Your task to perform on an android device: turn on airplane mode Image 0: 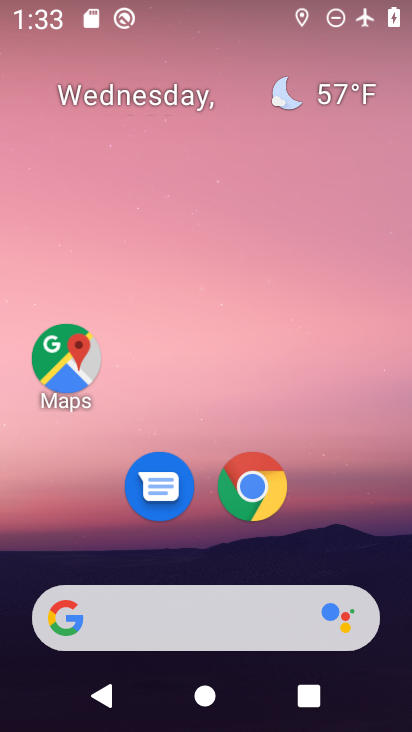
Step 0: drag from (351, 535) to (356, 167)
Your task to perform on an android device: turn on airplane mode Image 1: 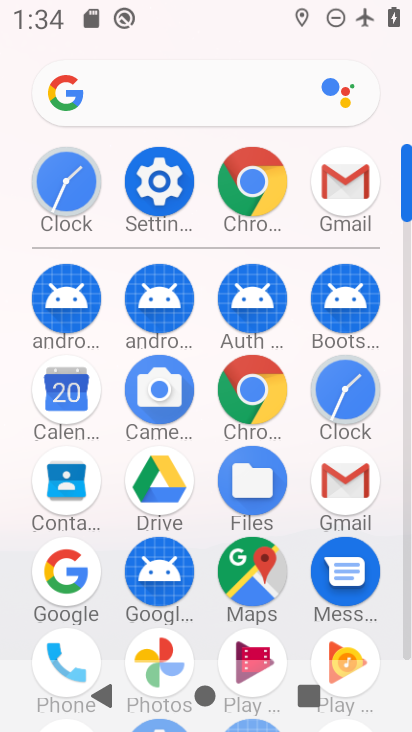
Step 1: click (166, 187)
Your task to perform on an android device: turn on airplane mode Image 2: 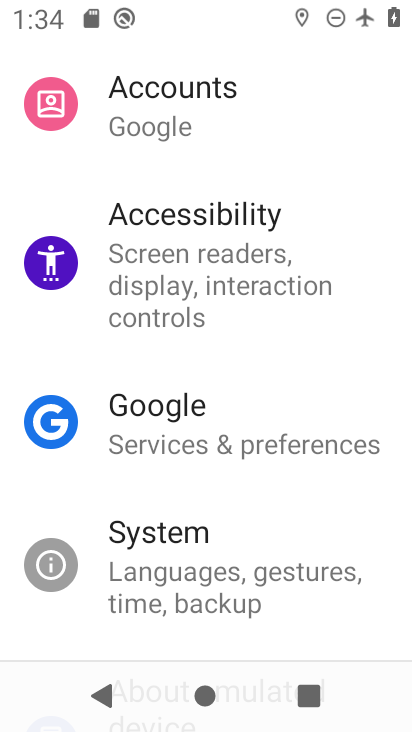
Step 2: drag from (350, 211) to (357, 310)
Your task to perform on an android device: turn on airplane mode Image 3: 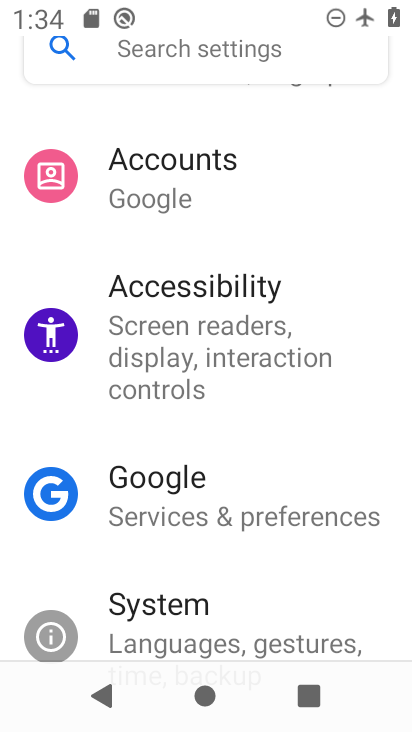
Step 3: drag from (364, 190) to (374, 284)
Your task to perform on an android device: turn on airplane mode Image 4: 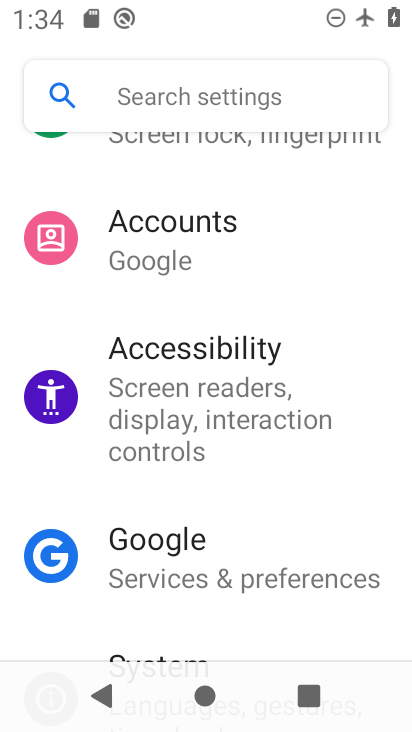
Step 4: drag from (362, 210) to (372, 305)
Your task to perform on an android device: turn on airplane mode Image 5: 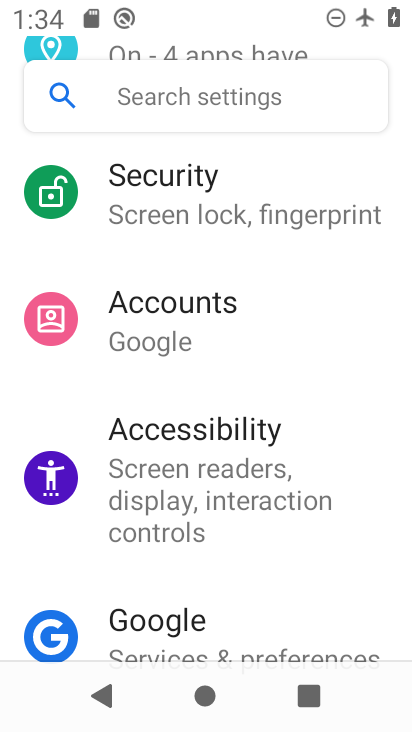
Step 5: drag from (372, 240) to (371, 317)
Your task to perform on an android device: turn on airplane mode Image 6: 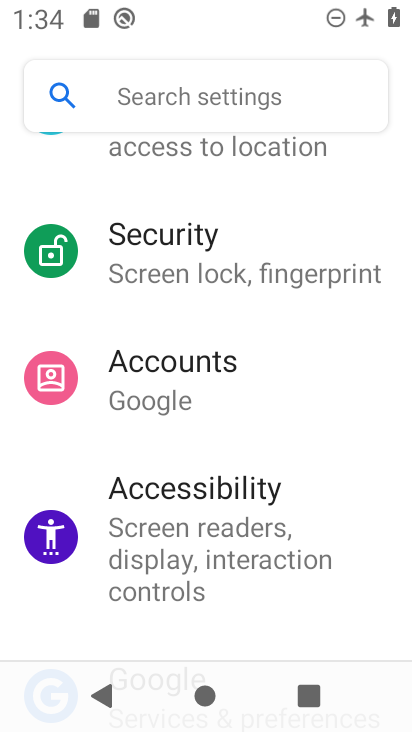
Step 6: drag from (365, 244) to (366, 308)
Your task to perform on an android device: turn on airplane mode Image 7: 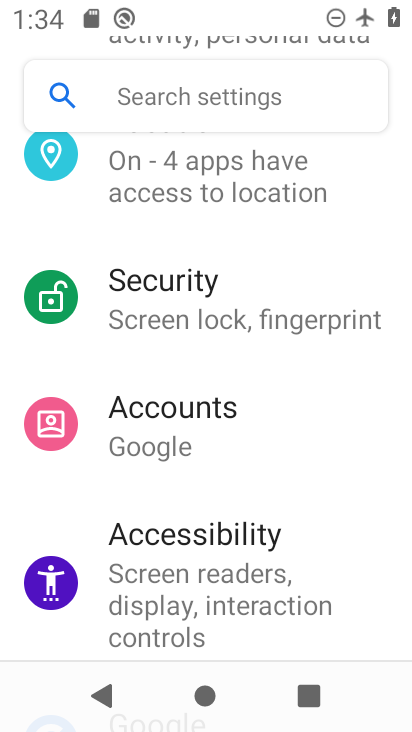
Step 7: drag from (357, 227) to (356, 336)
Your task to perform on an android device: turn on airplane mode Image 8: 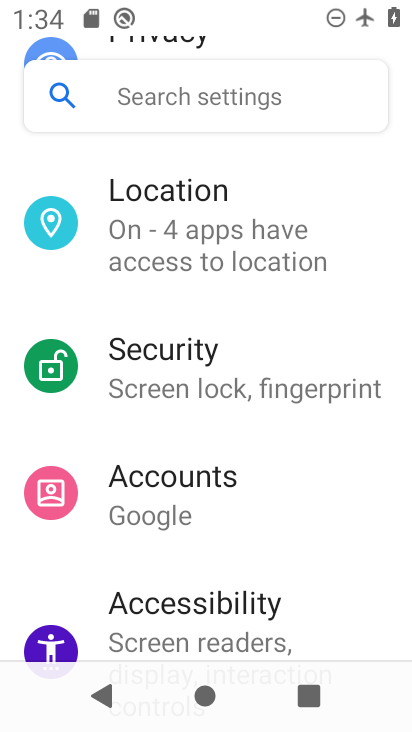
Step 8: drag from (352, 220) to (355, 288)
Your task to perform on an android device: turn on airplane mode Image 9: 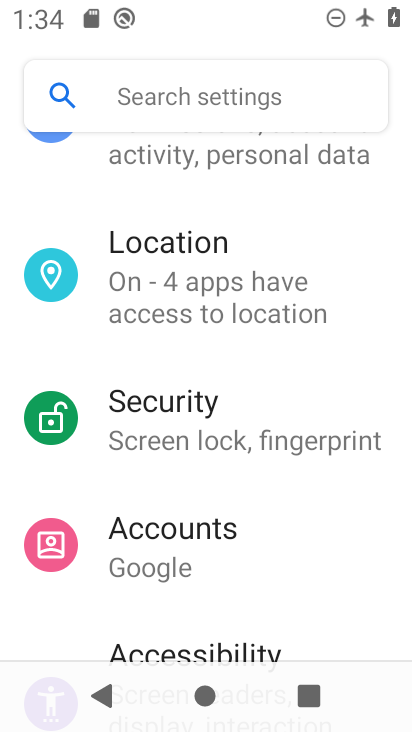
Step 9: drag from (348, 221) to (348, 349)
Your task to perform on an android device: turn on airplane mode Image 10: 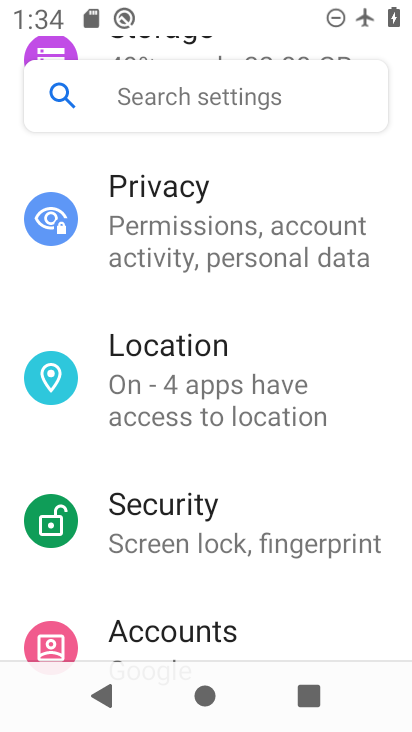
Step 10: drag from (359, 174) to (355, 310)
Your task to perform on an android device: turn on airplane mode Image 11: 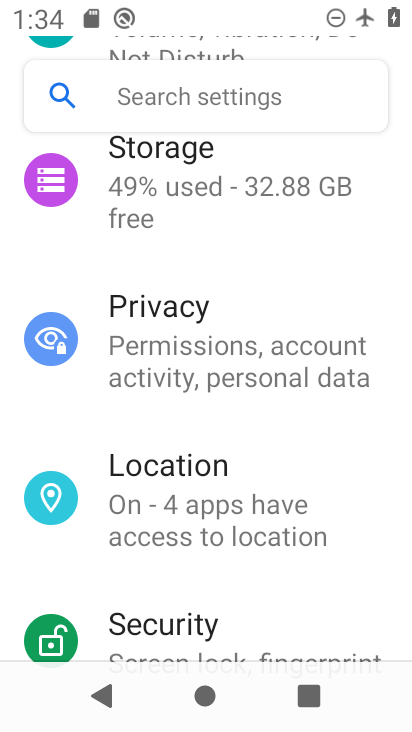
Step 11: drag from (368, 200) to (369, 293)
Your task to perform on an android device: turn on airplane mode Image 12: 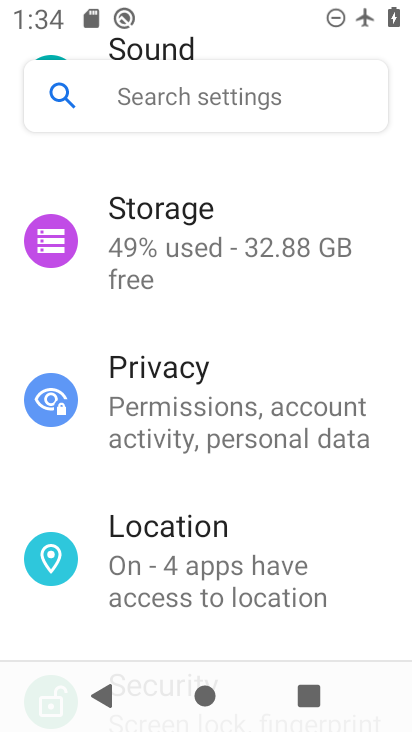
Step 12: drag from (375, 234) to (375, 332)
Your task to perform on an android device: turn on airplane mode Image 13: 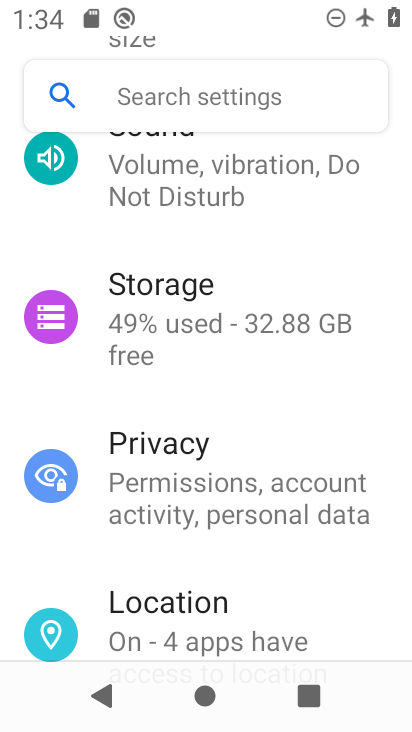
Step 13: drag from (384, 169) to (383, 263)
Your task to perform on an android device: turn on airplane mode Image 14: 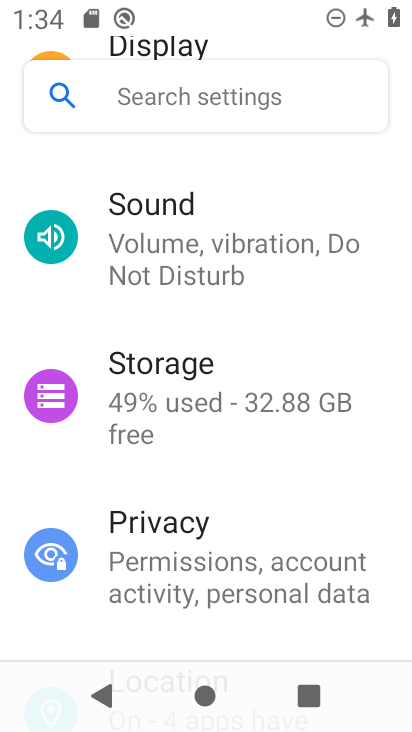
Step 14: drag from (382, 167) to (384, 292)
Your task to perform on an android device: turn on airplane mode Image 15: 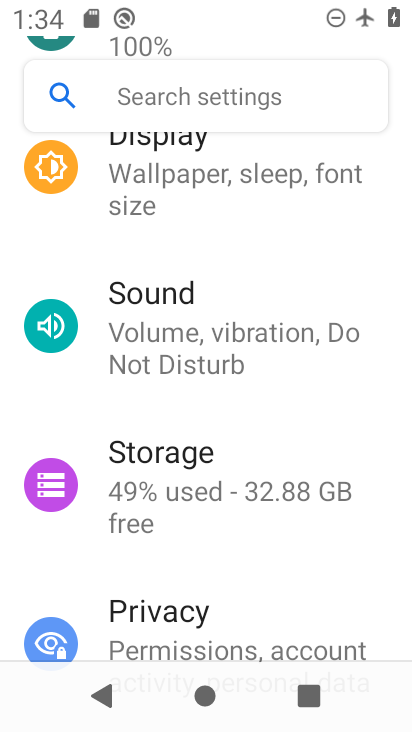
Step 15: drag from (386, 201) to (378, 447)
Your task to perform on an android device: turn on airplane mode Image 16: 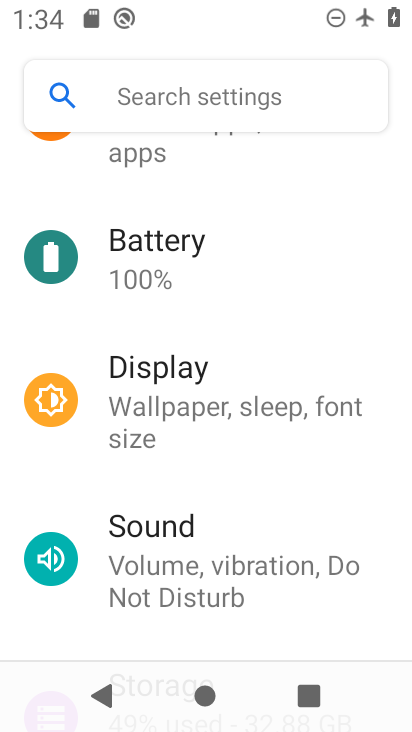
Step 16: drag from (384, 169) to (366, 370)
Your task to perform on an android device: turn on airplane mode Image 17: 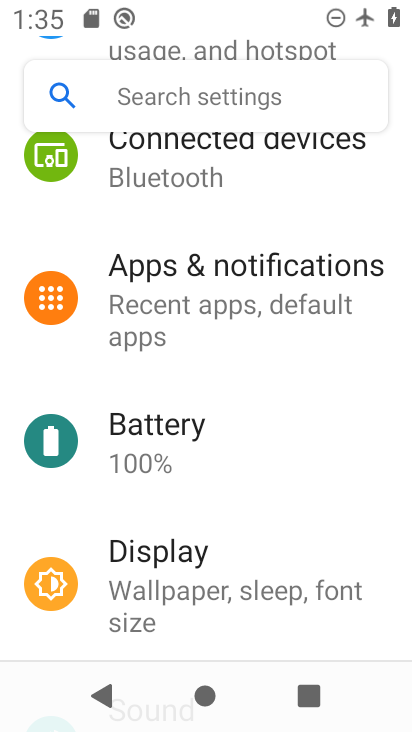
Step 17: drag from (369, 152) to (367, 365)
Your task to perform on an android device: turn on airplane mode Image 18: 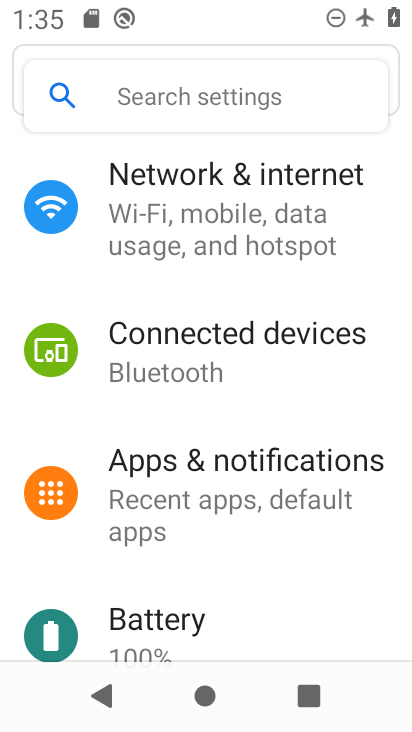
Step 18: click (308, 253)
Your task to perform on an android device: turn on airplane mode Image 19: 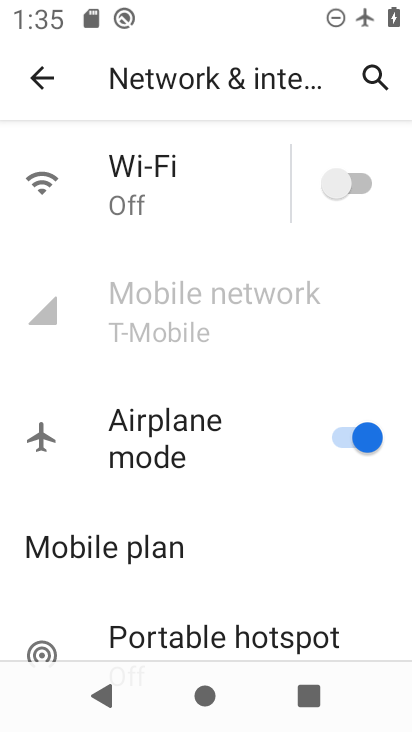
Step 19: task complete